Your task to perform on an android device: turn pop-ups on in chrome Image 0: 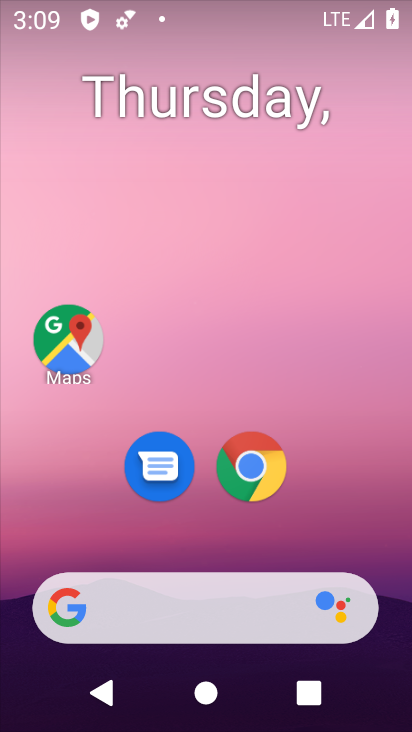
Step 0: drag from (221, 558) to (117, 9)
Your task to perform on an android device: turn pop-ups on in chrome Image 1: 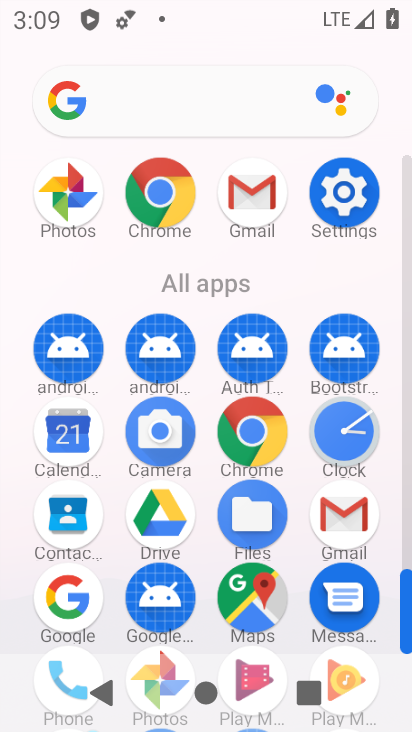
Step 1: click (252, 437)
Your task to perform on an android device: turn pop-ups on in chrome Image 2: 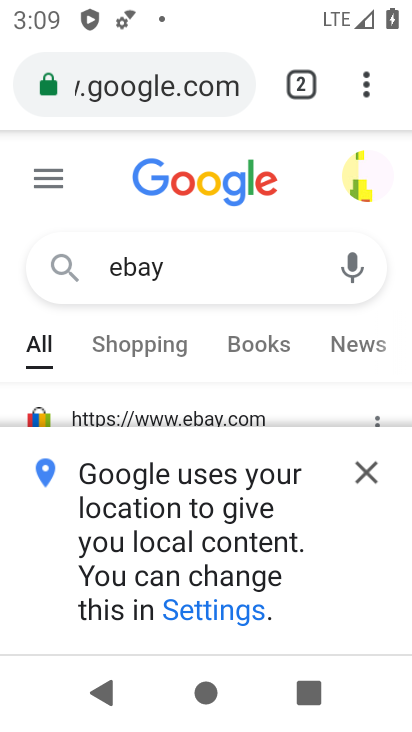
Step 2: click (353, 469)
Your task to perform on an android device: turn pop-ups on in chrome Image 3: 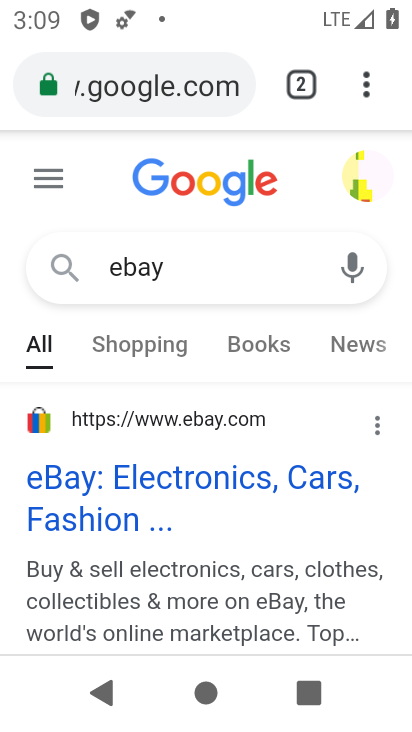
Step 3: click (360, 91)
Your task to perform on an android device: turn pop-ups on in chrome Image 4: 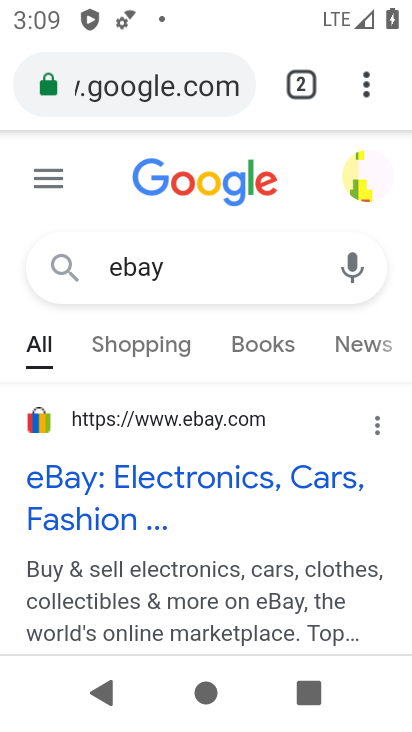
Step 4: drag from (363, 85) to (253, 525)
Your task to perform on an android device: turn pop-ups on in chrome Image 5: 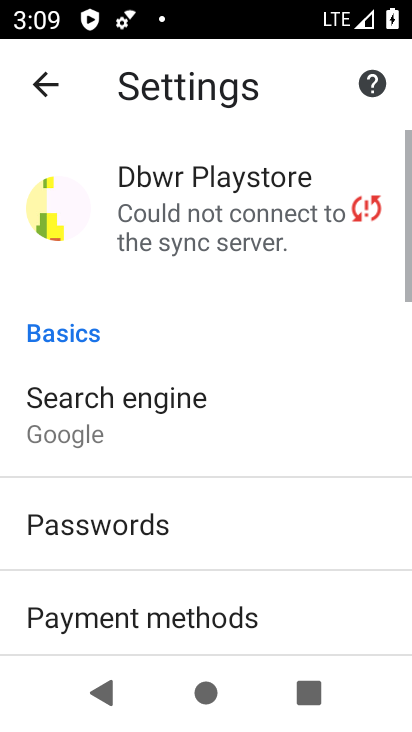
Step 5: drag from (203, 510) to (182, 87)
Your task to perform on an android device: turn pop-ups on in chrome Image 6: 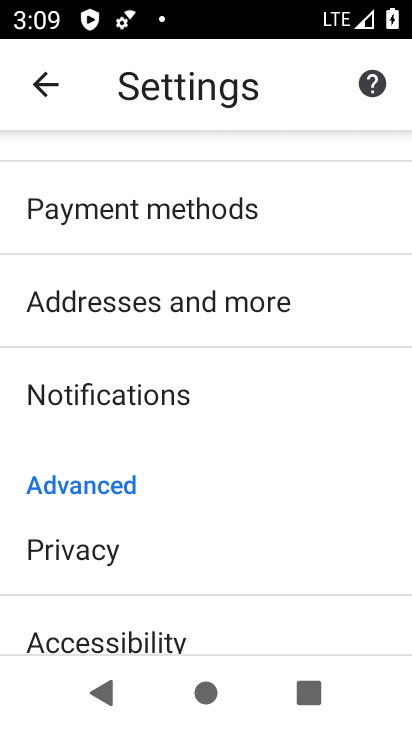
Step 6: drag from (205, 592) to (205, 114)
Your task to perform on an android device: turn pop-ups on in chrome Image 7: 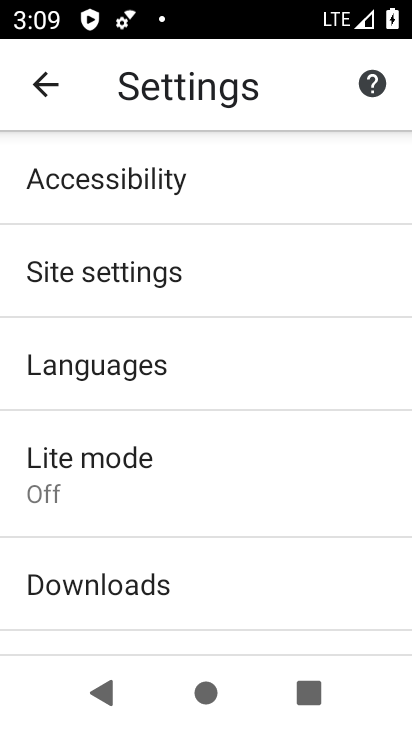
Step 7: click (119, 255)
Your task to perform on an android device: turn pop-ups on in chrome Image 8: 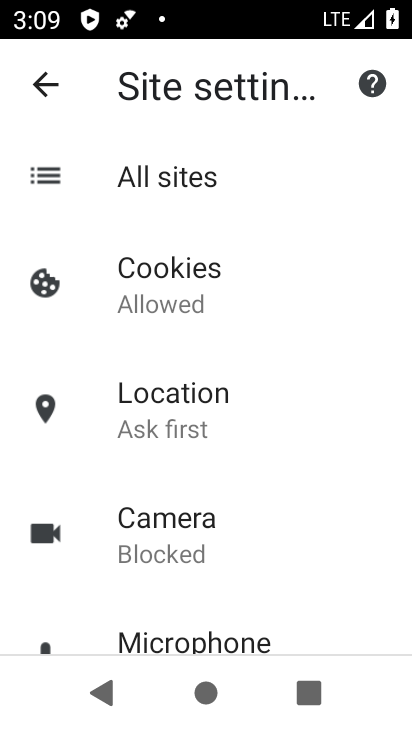
Step 8: drag from (197, 567) to (183, 157)
Your task to perform on an android device: turn pop-ups on in chrome Image 9: 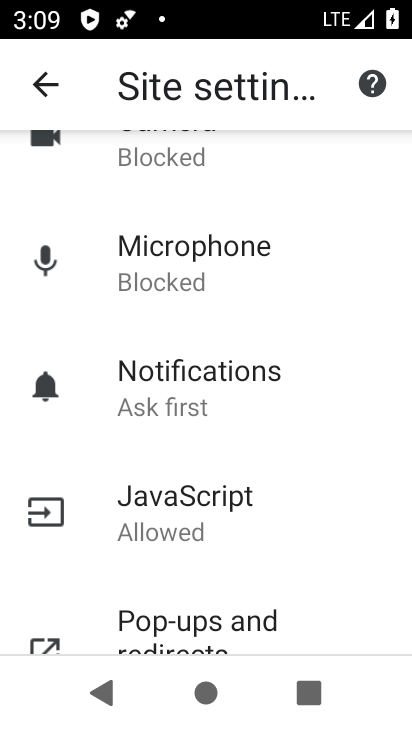
Step 9: click (186, 617)
Your task to perform on an android device: turn pop-ups on in chrome Image 10: 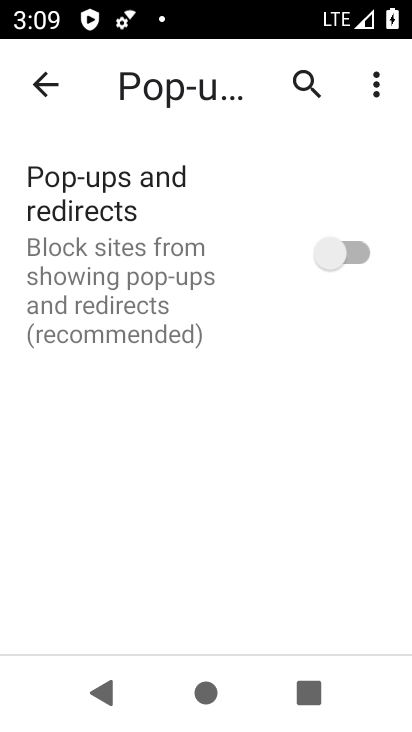
Step 10: click (333, 252)
Your task to perform on an android device: turn pop-ups on in chrome Image 11: 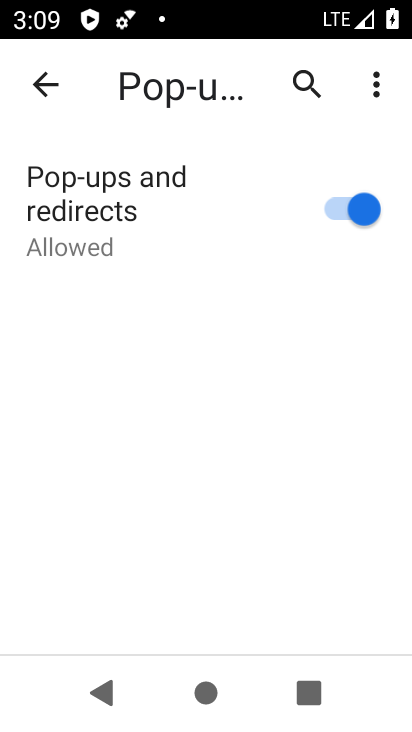
Step 11: task complete